Your task to perform on an android device: Go to calendar. Show me events next week Image 0: 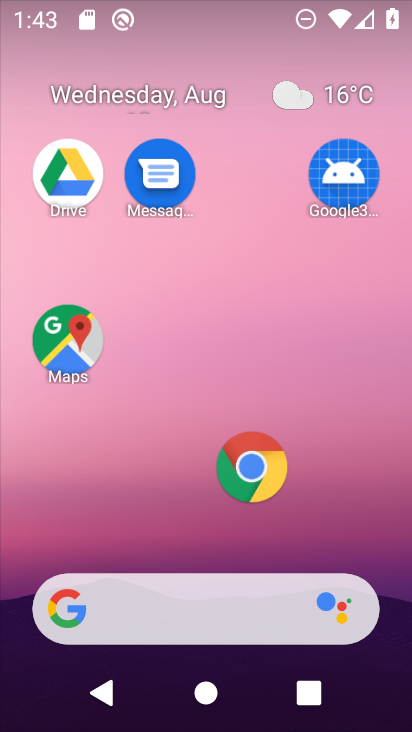
Step 0: click (175, 114)
Your task to perform on an android device: Go to calendar. Show me events next week Image 1: 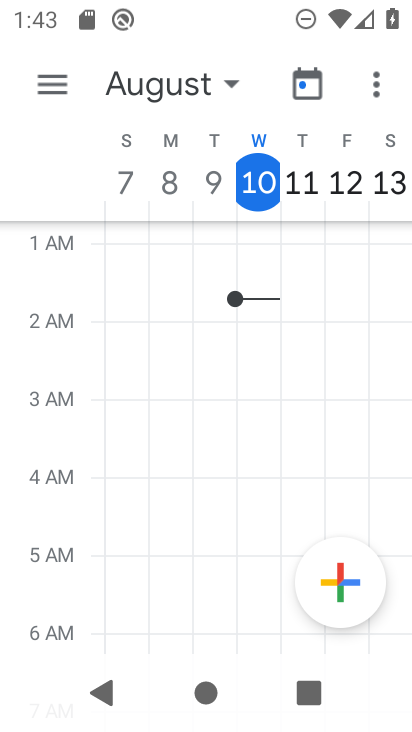
Step 1: click (168, 93)
Your task to perform on an android device: Go to calendar. Show me events next week Image 2: 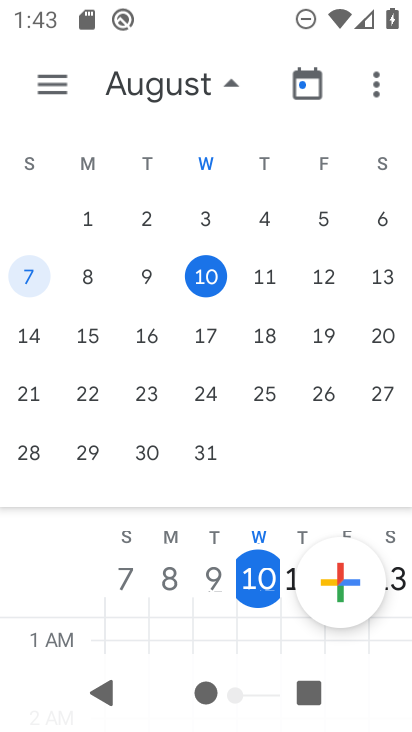
Step 2: click (217, 344)
Your task to perform on an android device: Go to calendar. Show me events next week Image 3: 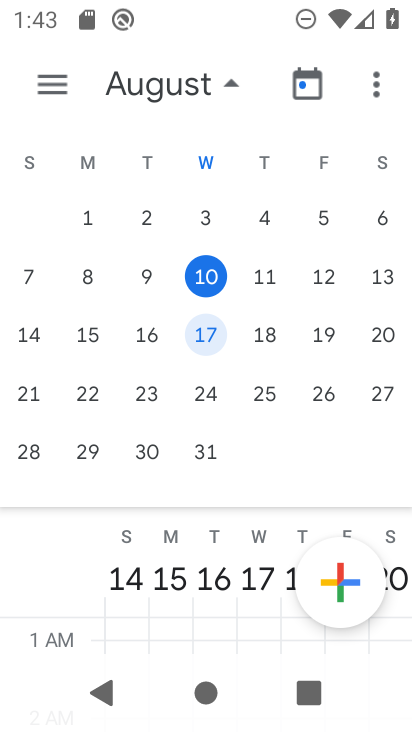
Step 3: click (205, 325)
Your task to perform on an android device: Go to calendar. Show me events next week Image 4: 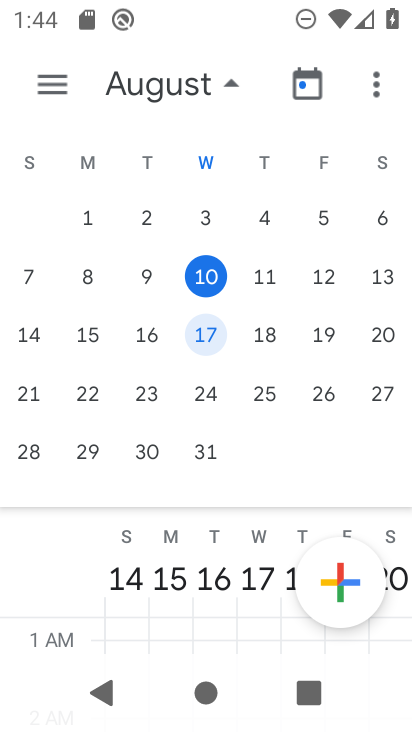
Step 4: task complete